Your task to perform on an android device: find snoozed emails in the gmail app Image 0: 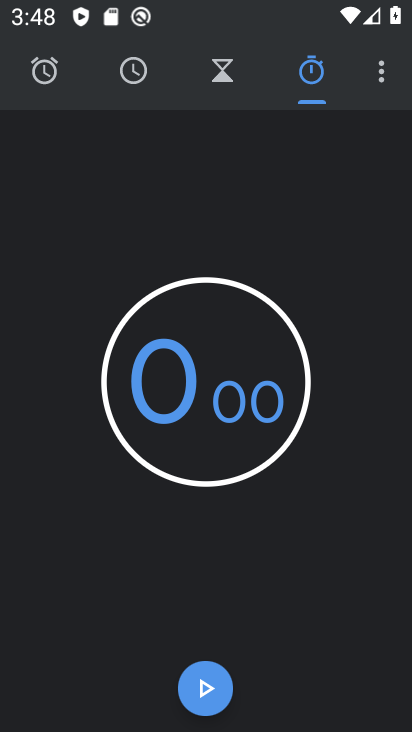
Step 0: press home button
Your task to perform on an android device: find snoozed emails in the gmail app Image 1: 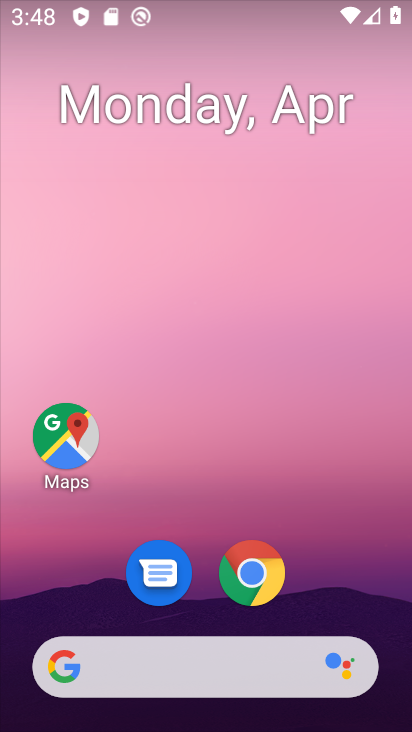
Step 1: drag from (360, 586) to (372, 158)
Your task to perform on an android device: find snoozed emails in the gmail app Image 2: 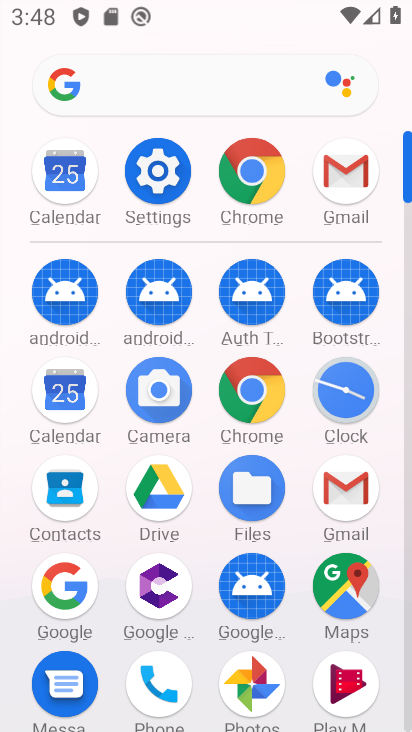
Step 2: click (357, 487)
Your task to perform on an android device: find snoozed emails in the gmail app Image 3: 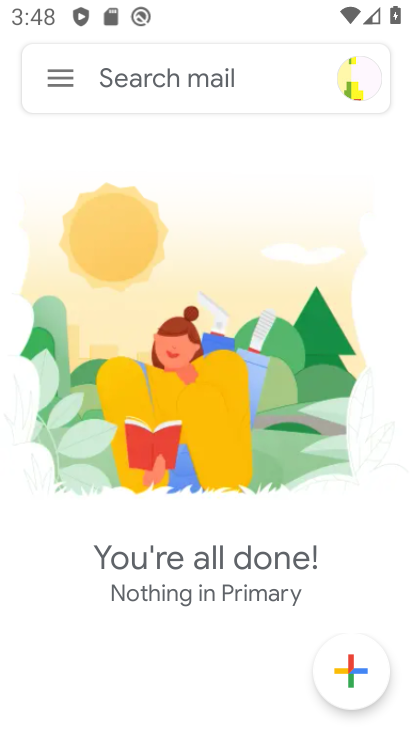
Step 3: click (68, 88)
Your task to perform on an android device: find snoozed emails in the gmail app Image 4: 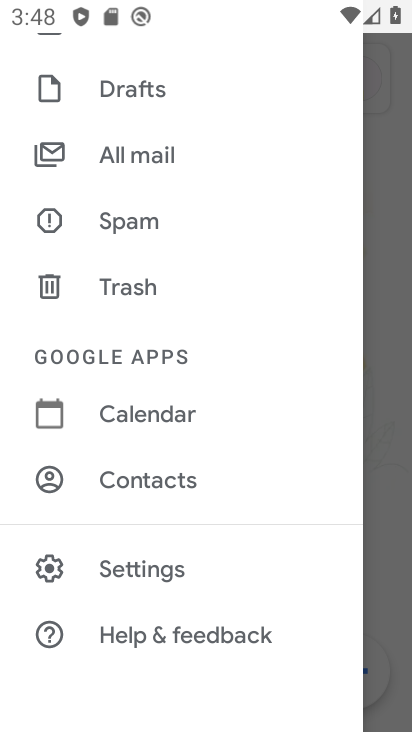
Step 4: drag from (280, 524) to (279, 338)
Your task to perform on an android device: find snoozed emails in the gmail app Image 5: 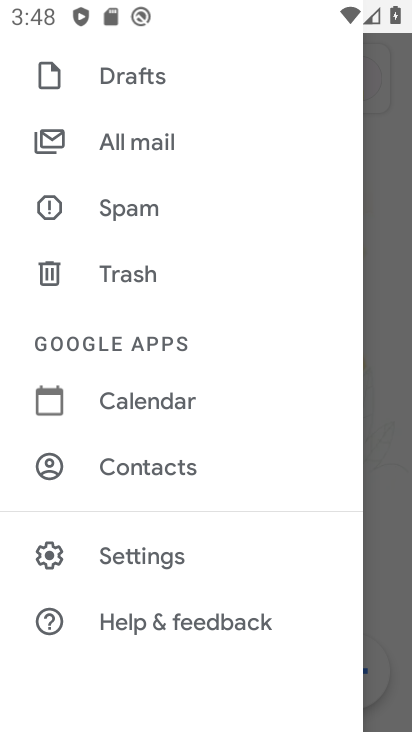
Step 5: drag from (279, 268) to (273, 420)
Your task to perform on an android device: find snoozed emails in the gmail app Image 6: 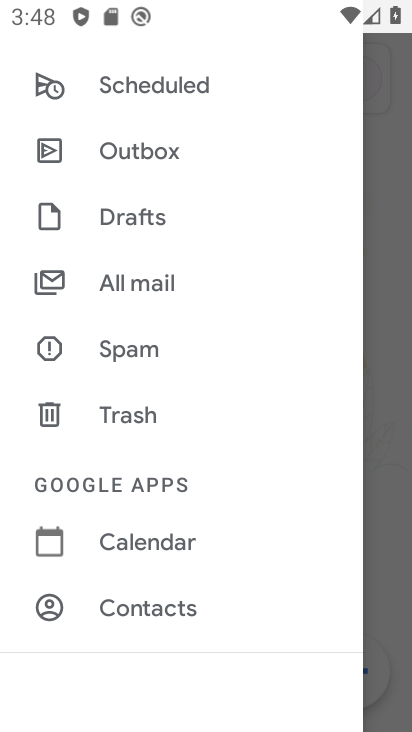
Step 6: drag from (275, 273) to (267, 434)
Your task to perform on an android device: find snoozed emails in the gmail app Image 7: 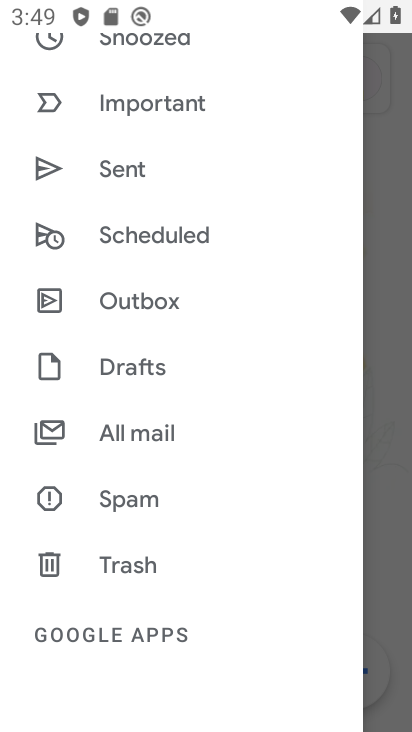
Step 7: drag from (279, 271) to (302, 462)
Your task to perform on an android device: find snoozed emails in the gmail app Image 8: 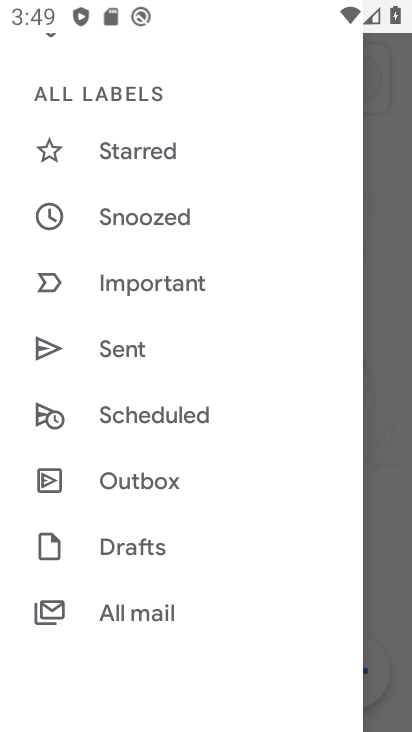
Step 8: drag from (287, 281) to (281, 465)
Your task to perform on an android device: find snoozed emails in the gmail app Image 9: 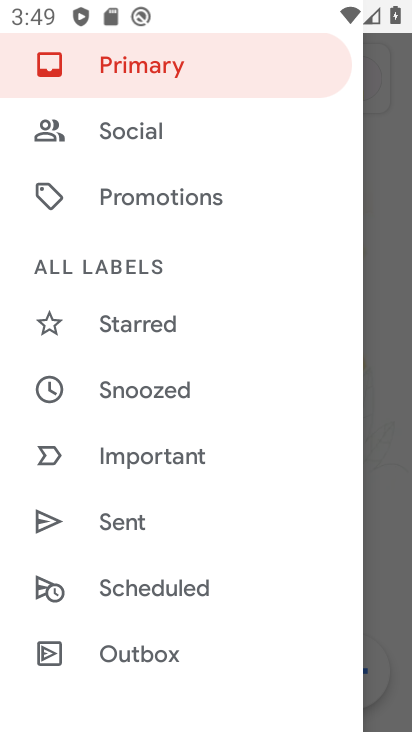
Step 9: click (164, 410)
Your task to perform on an android device: find snoozed emails in the gmail app Image 10: 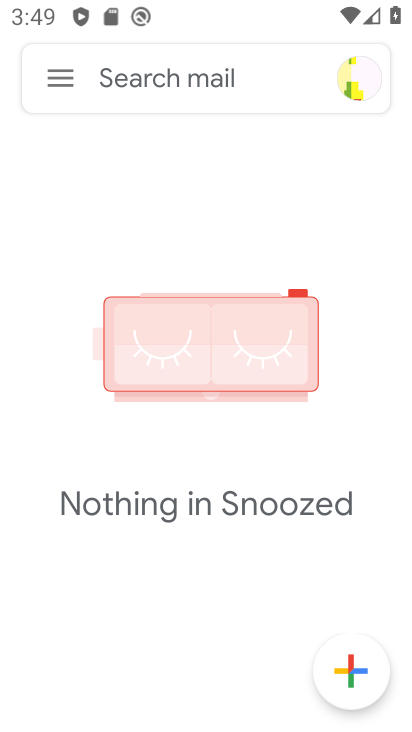
Step 10: task complete